Your task to perform on an android device: change notifications settings Image 0: 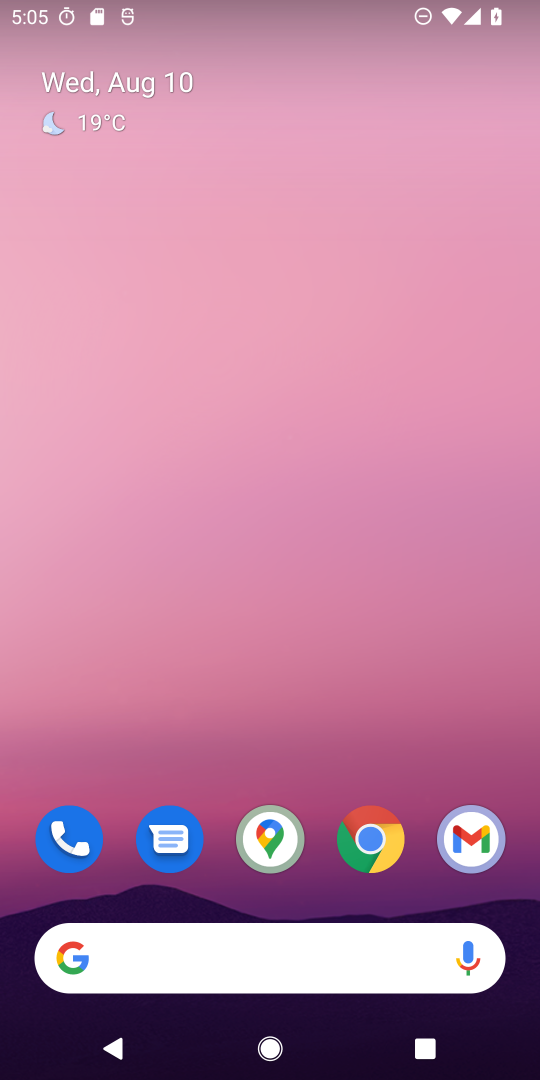
Step 0: drag from (37, 1031) to (174, 501)
Your task to perform on an android device: change notifications settings Image 1: 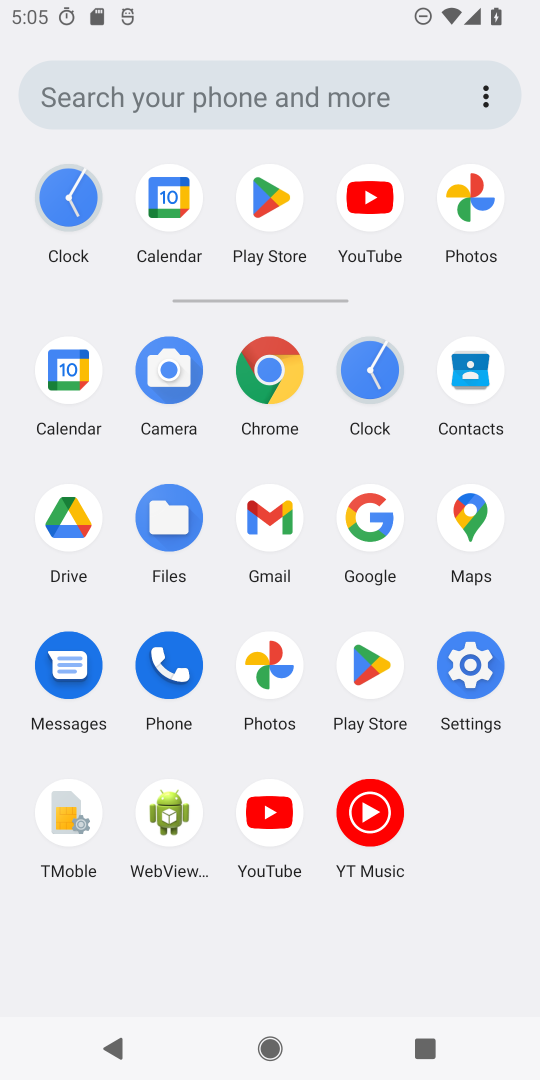
Step 1: click (450, 662)
Your task to perform on an android device: change notifications settings Image 2: 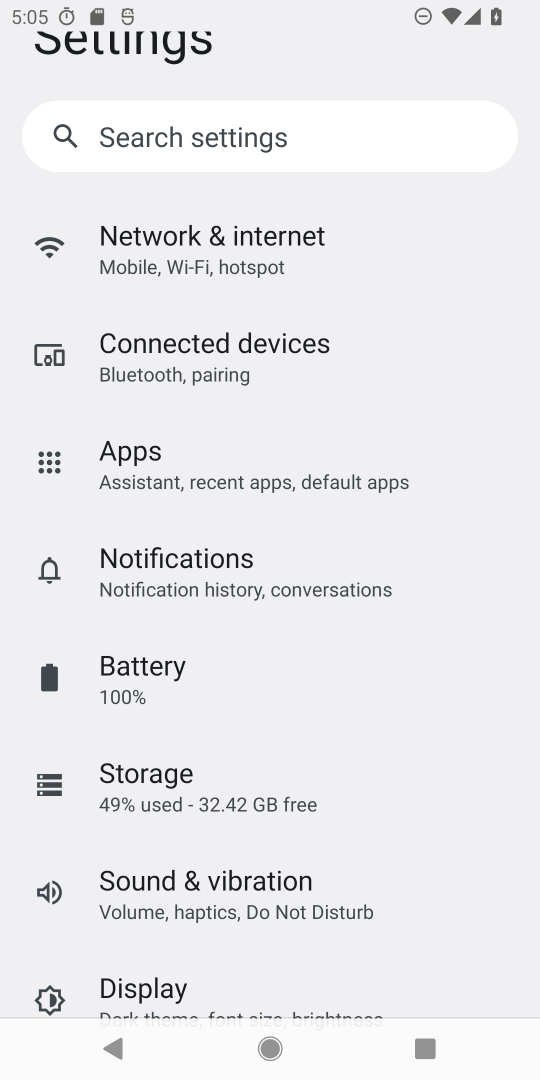
Step 2: drag from (393, 972) to (511, 271)
Your task to perform on an android device: change notifications settings Image 3: 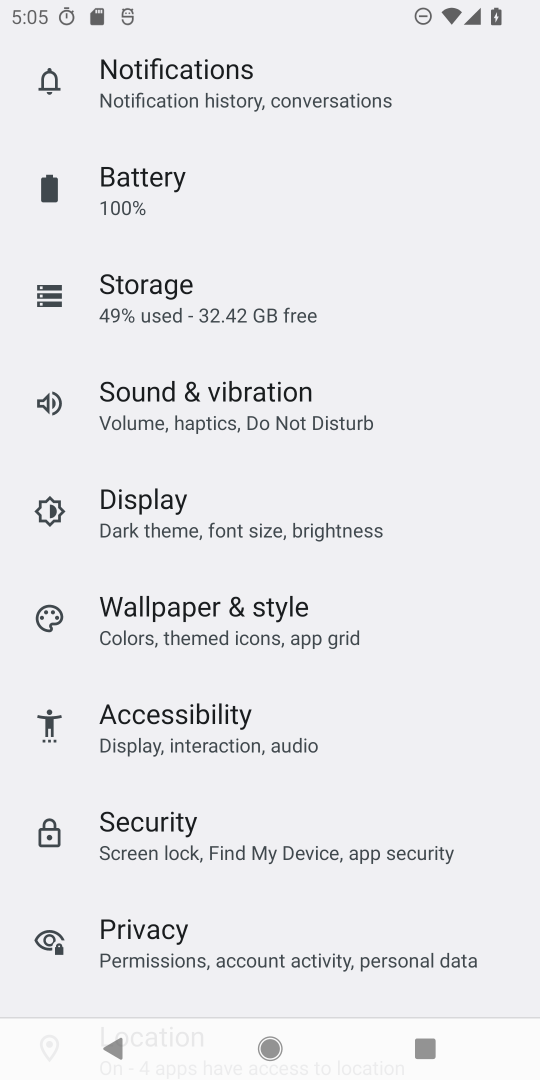
Step 3: click (264, 100)
Your task to perform on an android device: change notifications settings Image 4: 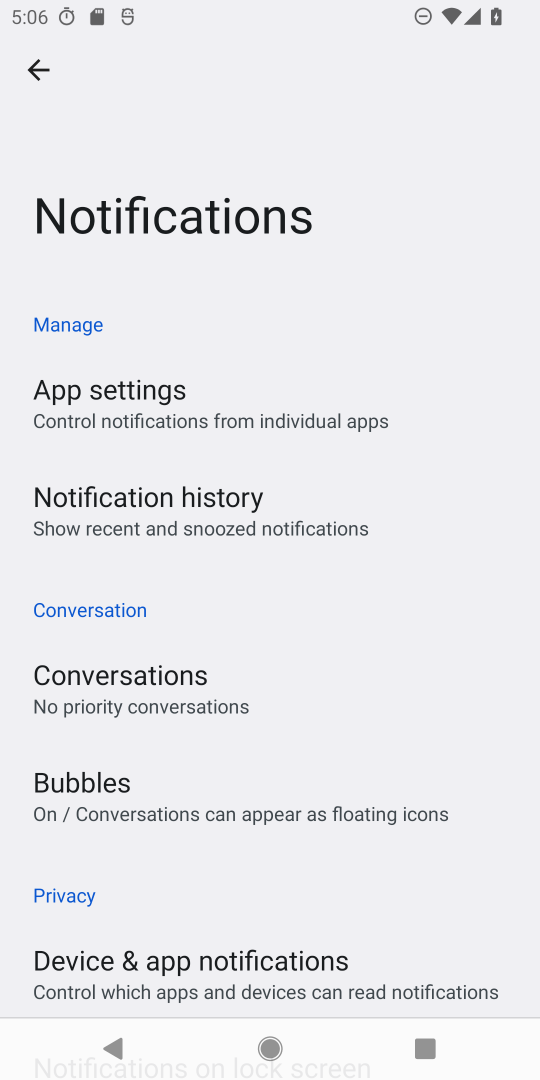
Step 4: task complete